Your task to perform on an android device: What's on the menu at Domino's? Image 0: 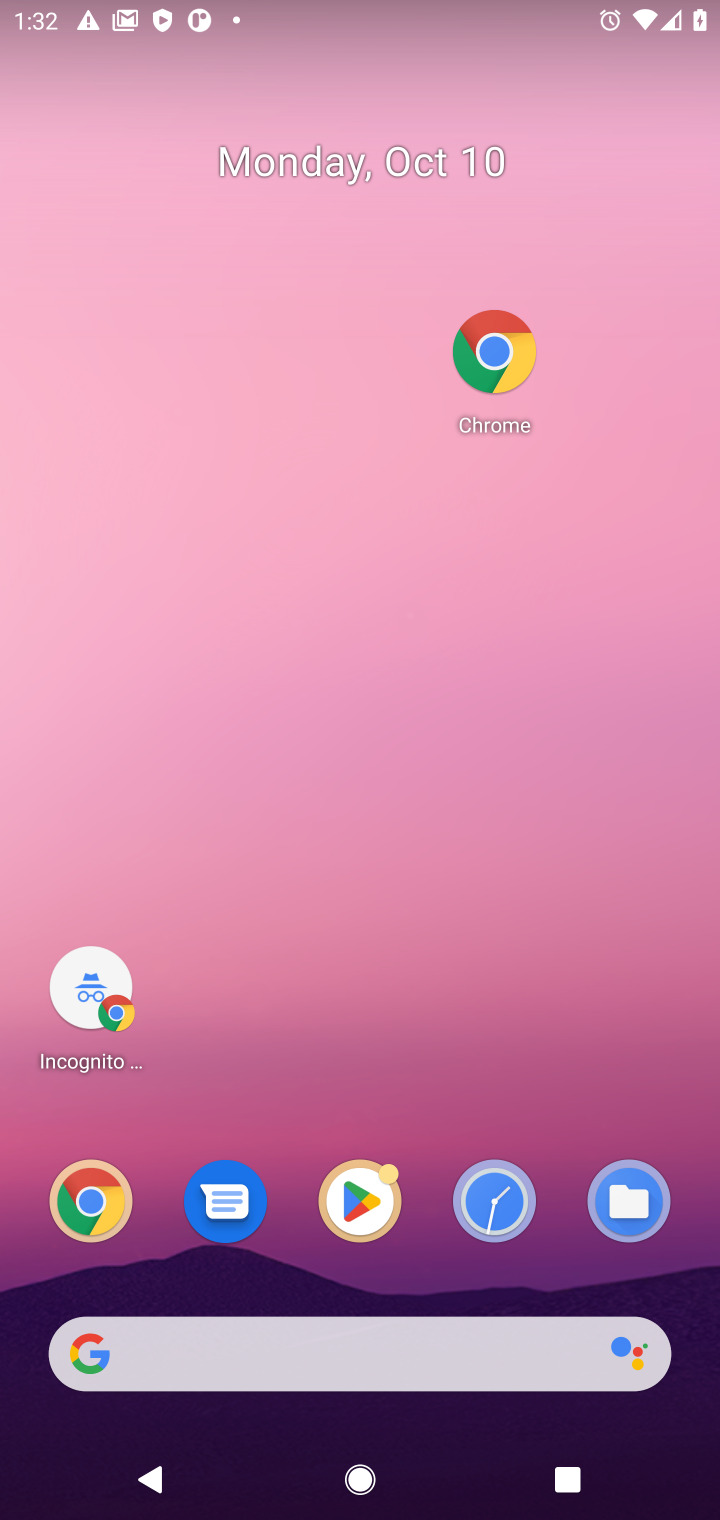
Step 0: click (483, 361)
Your task to perform on an android device: What's on the menu at Domino's? Image 1: 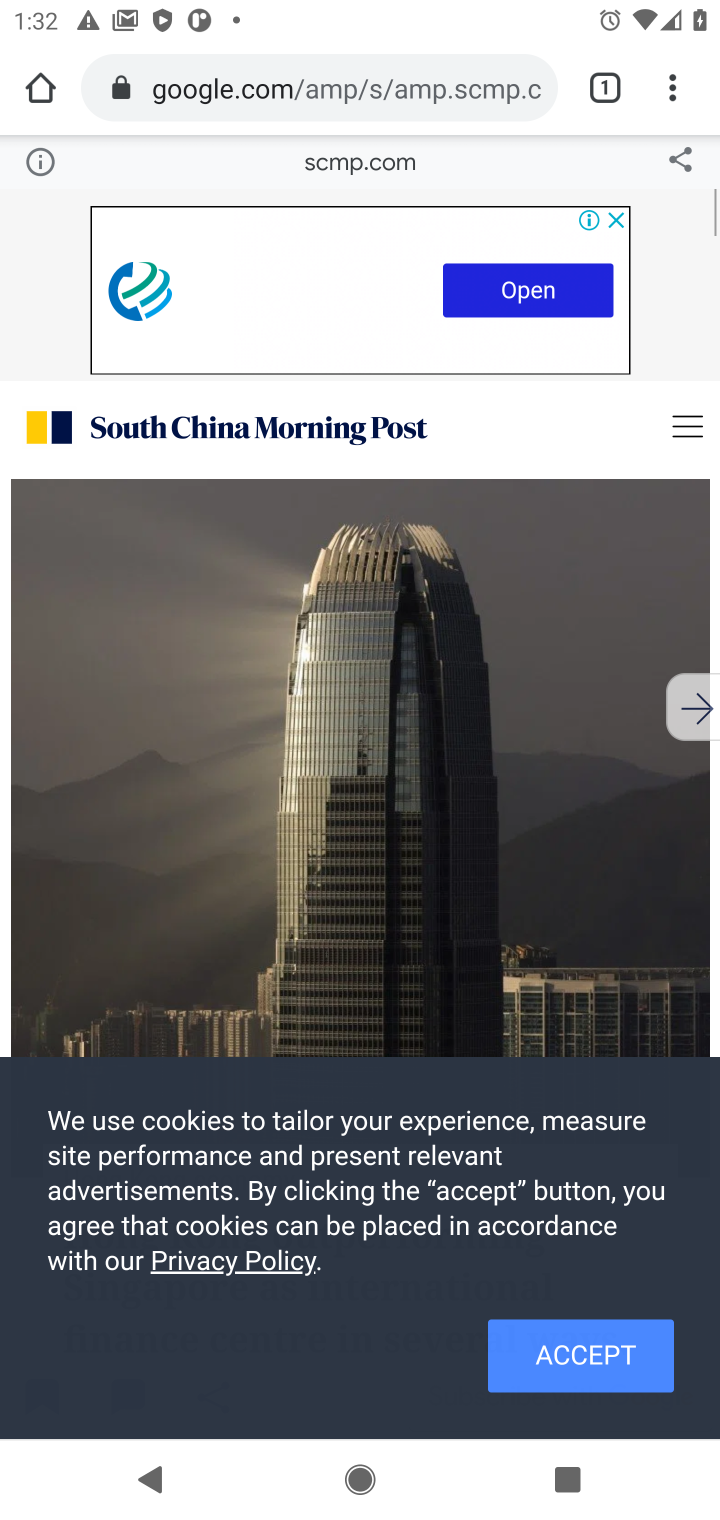
Step 1: click (269, 87)
Your task to perform on an android device: What's on the menu at Domino's? Image 2: 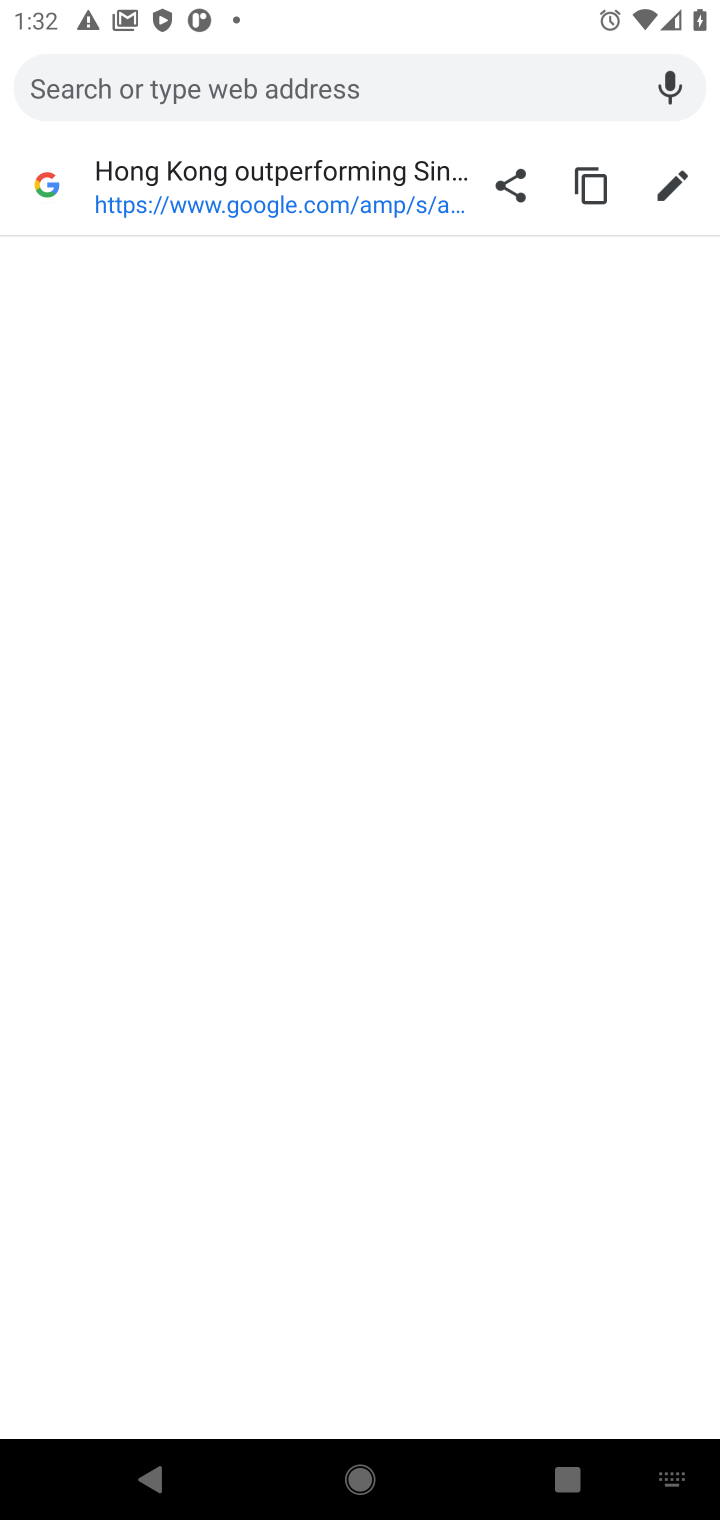
Step 2: type "menu at Domino's"
Your task to perform on an android device: What's on the menu at Domino's? Image 3: 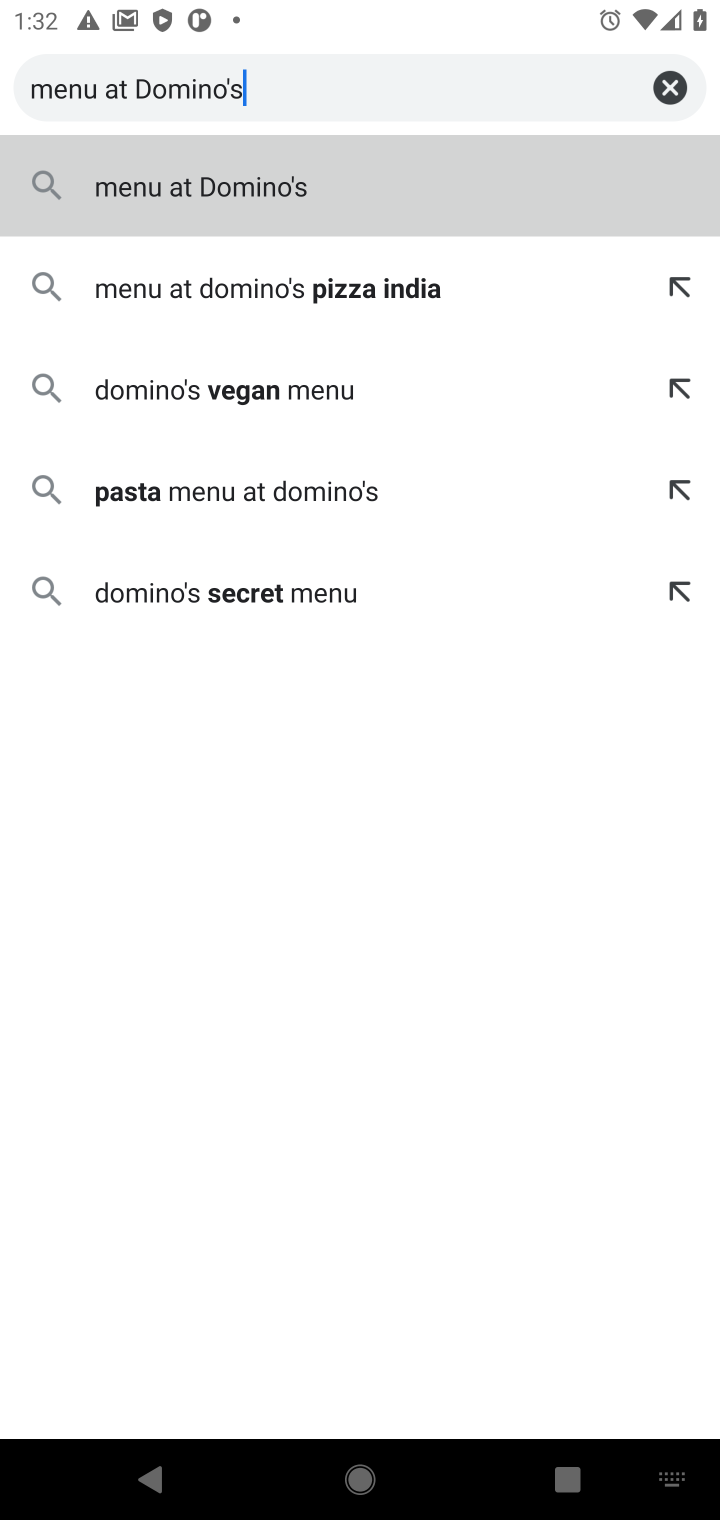
Step 3: click (252, 186)
Your task to perform on an android device: What's on the menu at Domino's? Image 4: 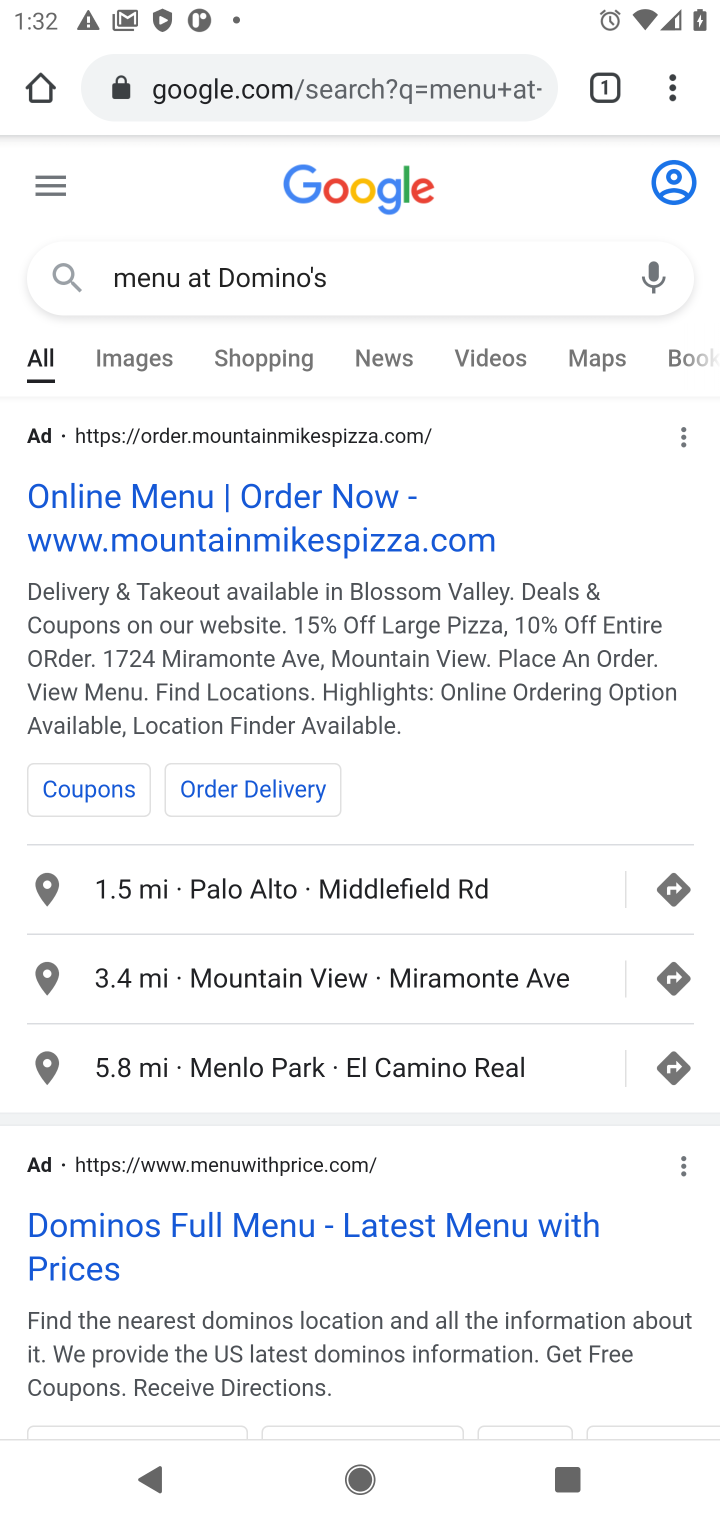
Step 4: drag from (312, 985) to (290, 543)
Your task to perform on an android device: What's on the menu at Domino's? Image 5: 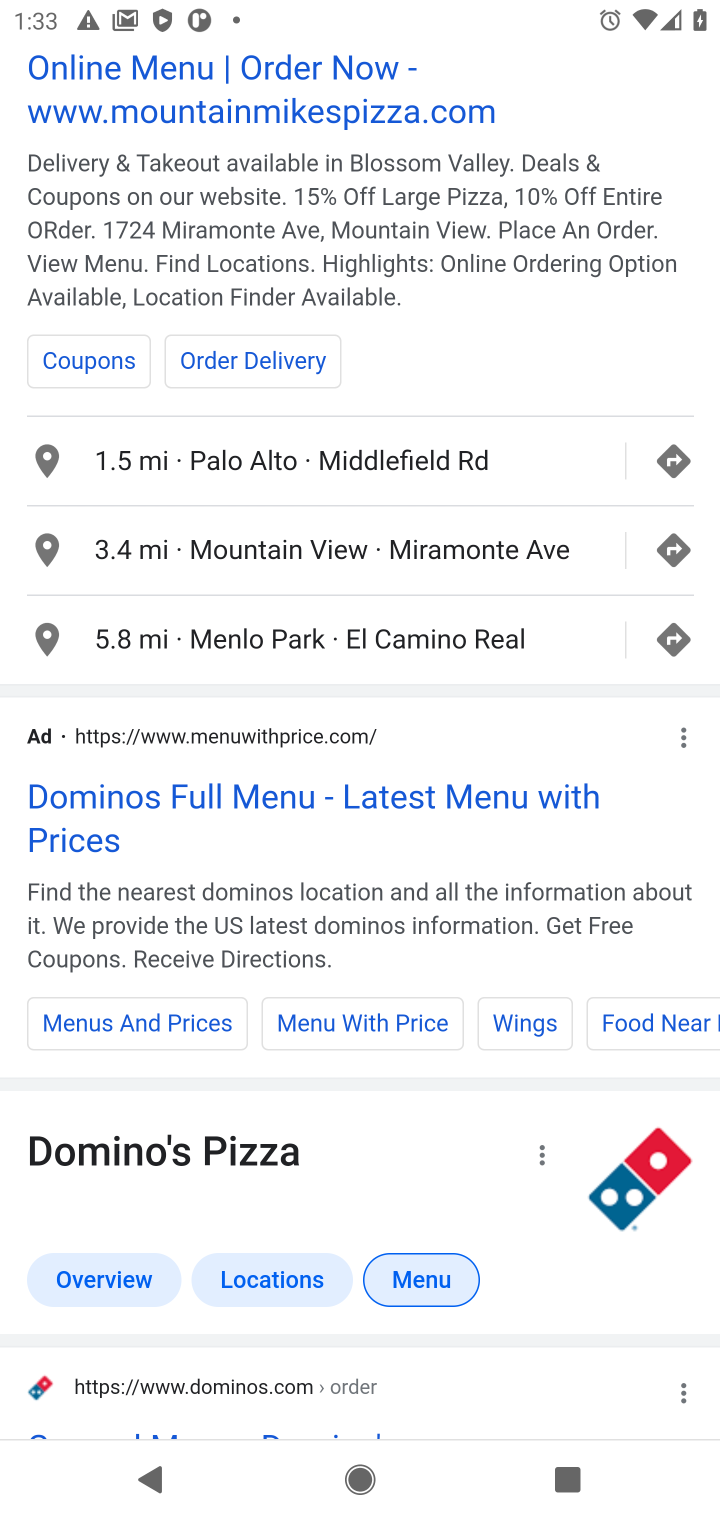
Step 5: click (220, 793)
Your task to perform on an android device: What's on the menu at Domino's? Image 6: 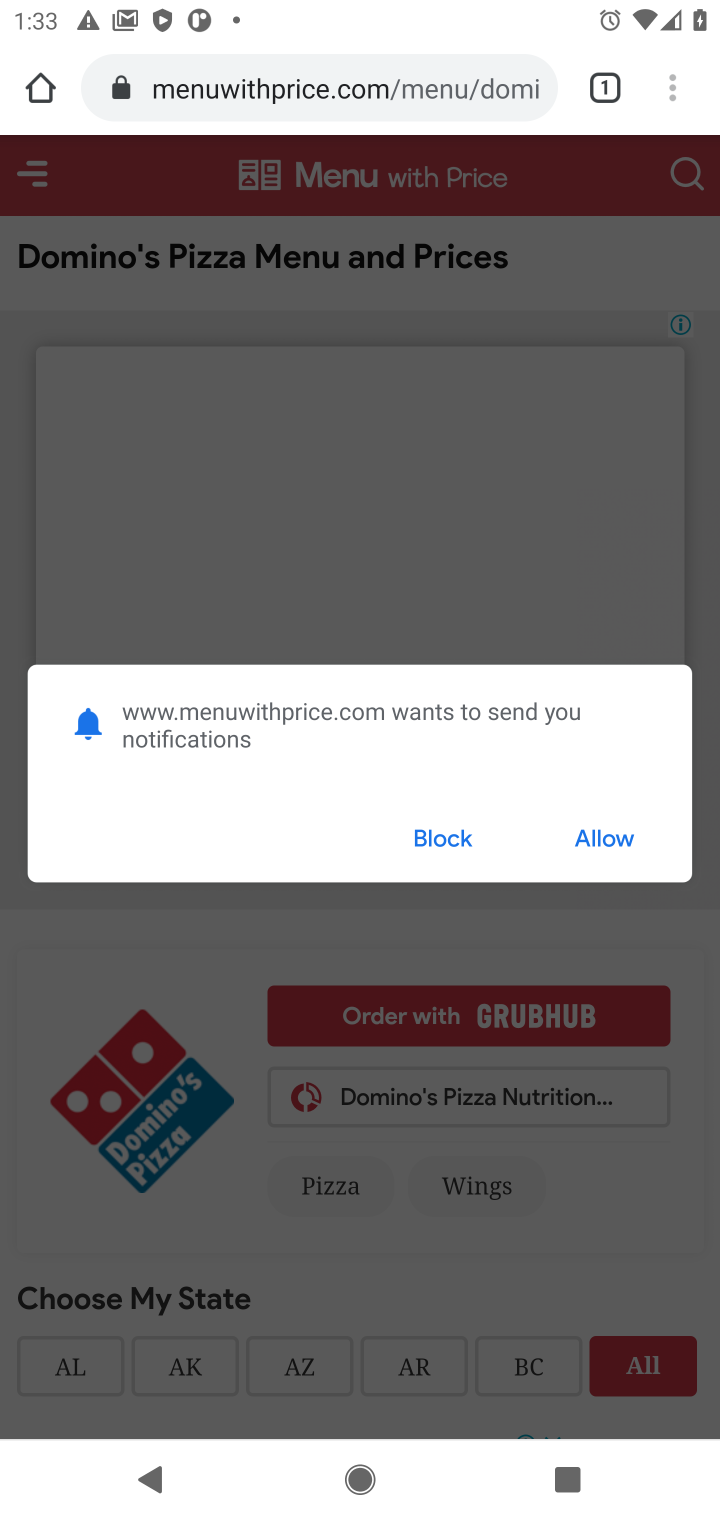
Step 6: click (431, 828)
Your task to perform on an android device: What's on the menu at Domino's? Image 7: 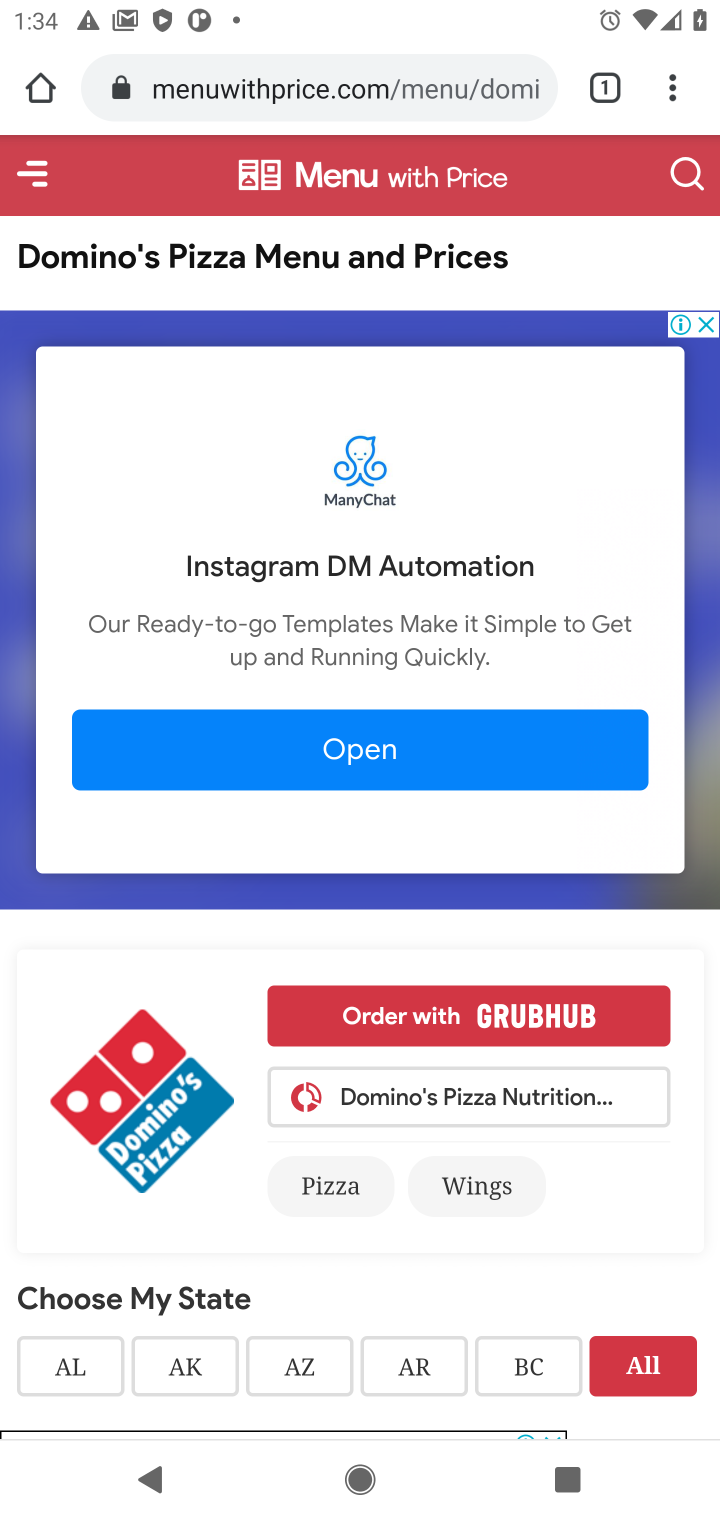
Step 7: task complete